Your task to perform on an android device: remove spam from my inbox in the gmail app Image 0: 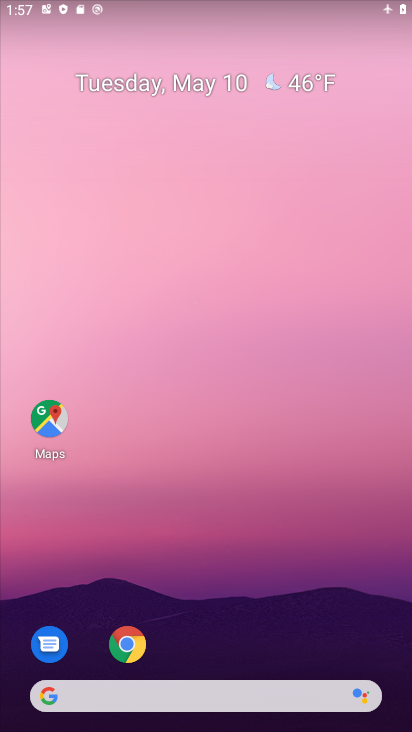
Step 0: drag from (229, 557) to (279, 215)
Your task to perform on an android device: remove spam from my inbox in the gmail app Image 1: 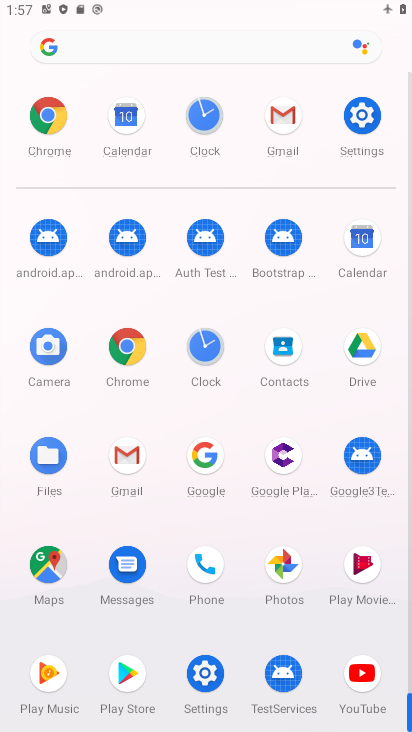
Step 1: click (136, 469)
Your task to perform on an android device: remove spam from my inbox in the gmail app Image 2: 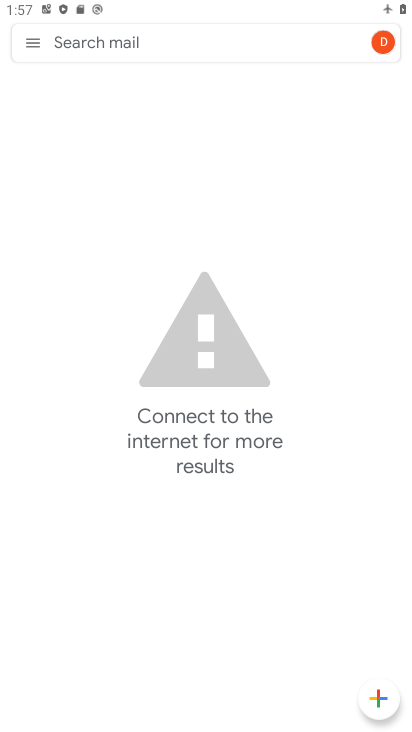
Step 2: task complete